Your task to perform on an android device: check the backup settings in the google photos Image 0: 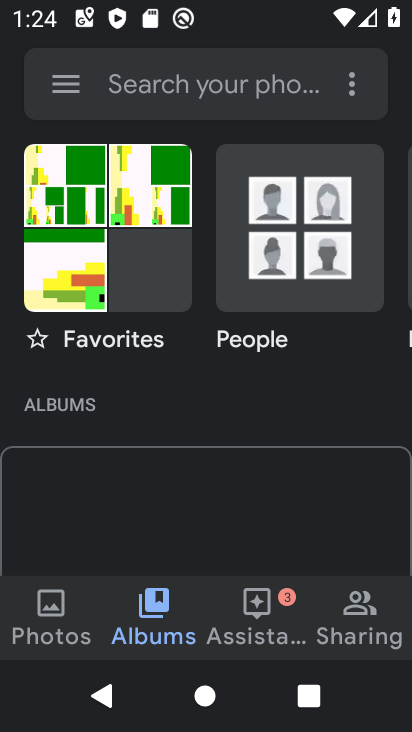
Step 0: click (55, 88)
Your task to perform on an android device: check the backup settings in the google photos Image 1: 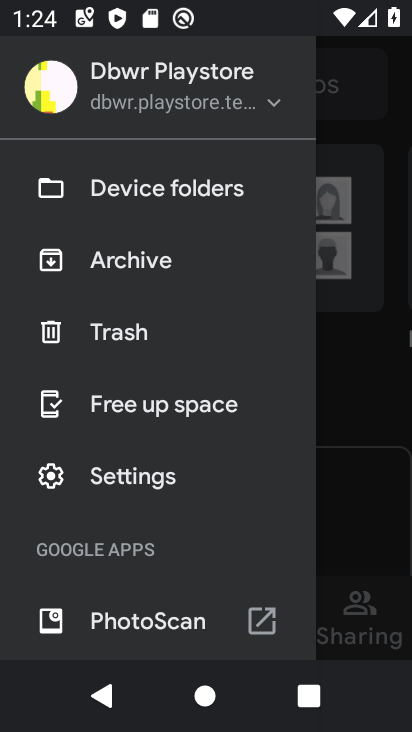
Step 1: click (104, 495)
Your task to perform on an android device: check the backup settings in the google photos Image 2: 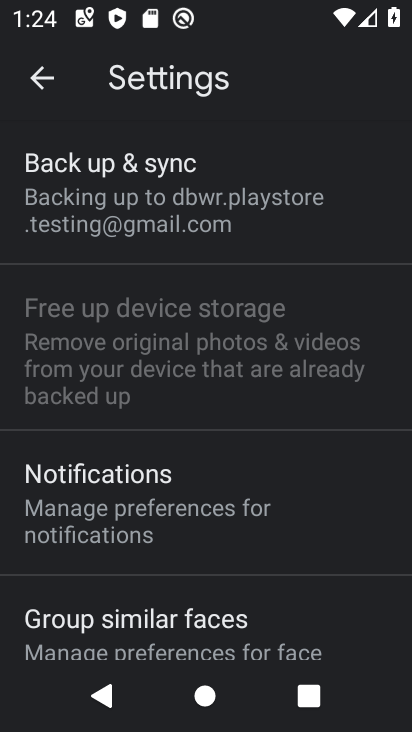
Step 2: click (108, 205)
Your task to perform on an android device: check the backup settings in the google photos Image 3: 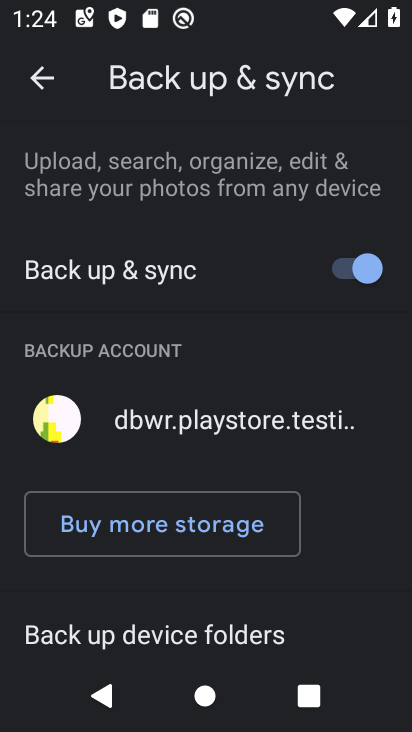
Step 3: click (61, 103)
Your task to perform on an android device: check the backup settings in the google photos Image 4: 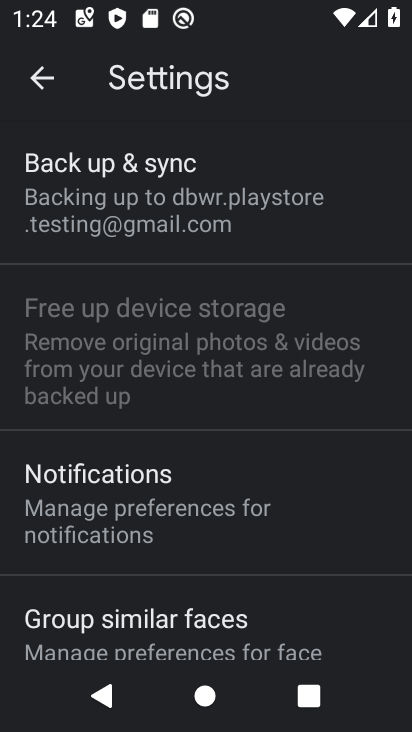
Step 4: click (278, 172)
Your task to perform on an android device: check the backup settings in the google photos Image 5: 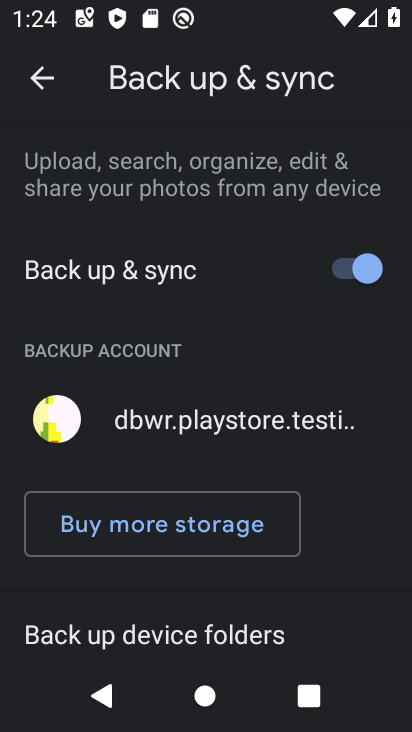
Step 5: task complete